Your task to perform on an android device: open a new tab in the chrome app Image 0: 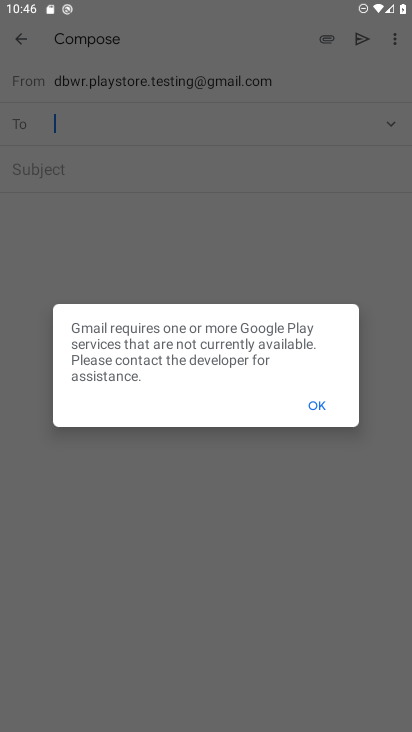
Step 0: press back button
Your task to perform on an android device: open a new tab in the chrome app Image 1: 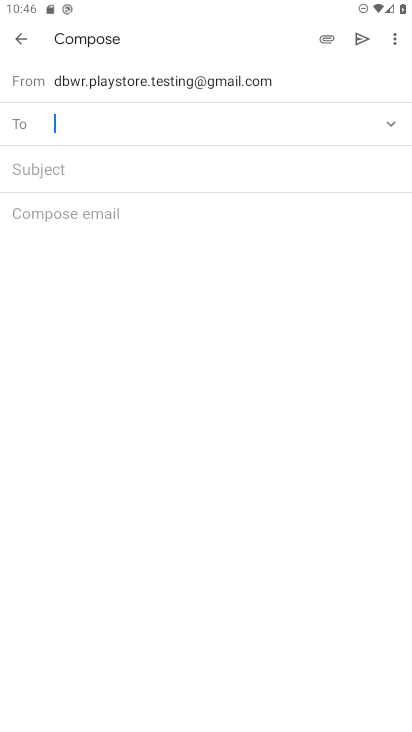
Step 1: press back button
Your task to perform on an android device: open a new tab in the chrome app Image 2: 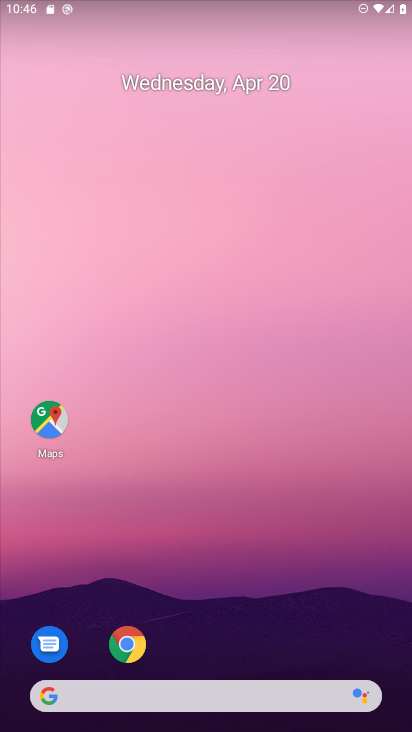
Step 2: drag from (322, 553) to (231, 47)
Your task to perform on an android device: open a new tab in the chrome app Image 3: 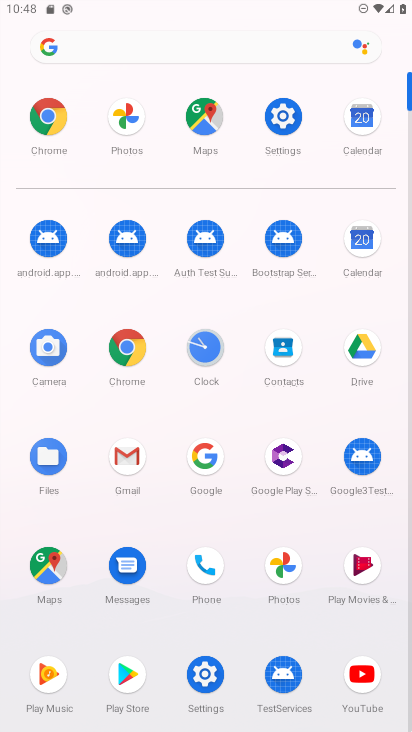
Step 3: click (111, 350)
Your task to perform on an android device: open a new tab in the chrome app Image 4: 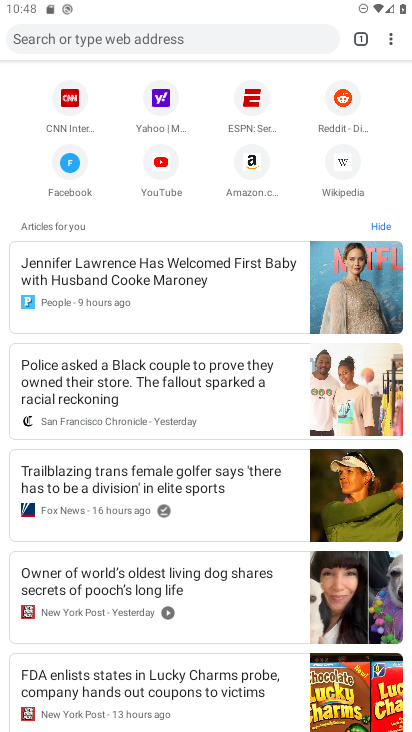
Step 4: click (359, 40)
Your task to perform on an android device: open a new tab in the chrome app Image 5: 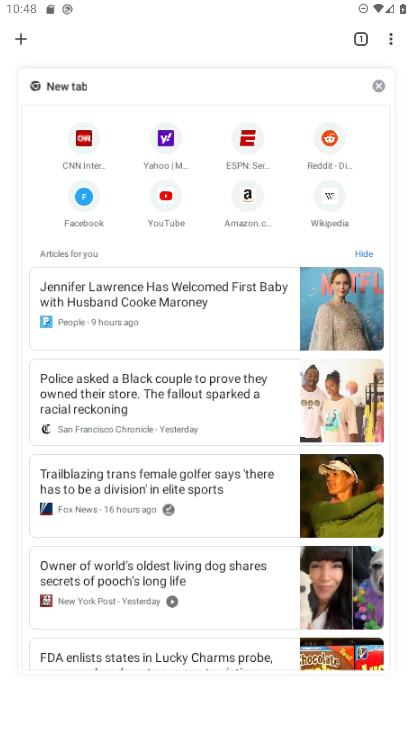
Step 5: click (23, 41)
Your task to perform on an android device: open a new tab in the chrome app Image 6: 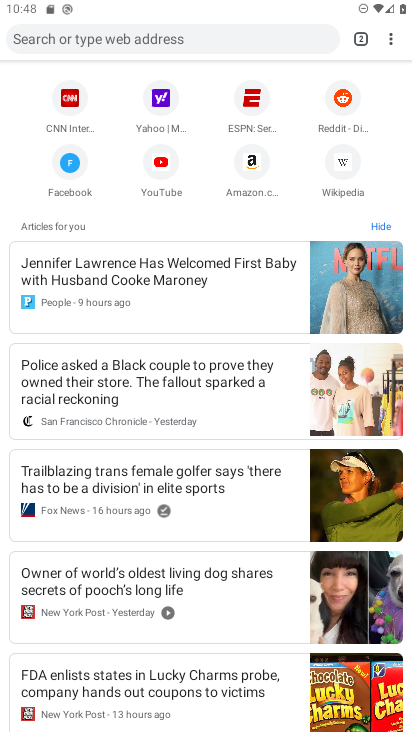
Step 6: task complete